Your task to perform on an android device: turn off javascript in the chrome app Image 0: 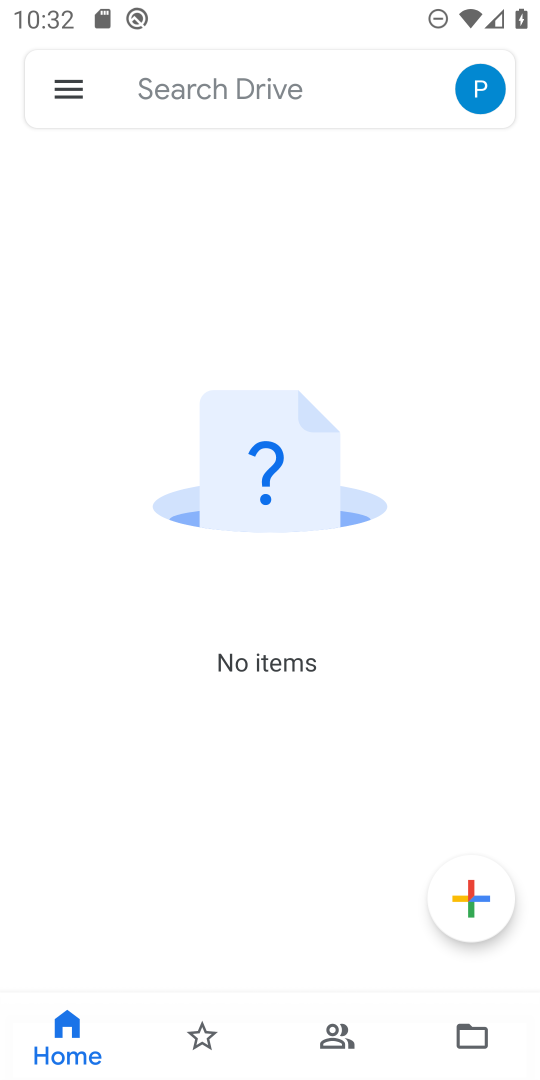
Step 0: press home button
Your task to perform on an android device: turn off javascript in the chrome app Image 1: 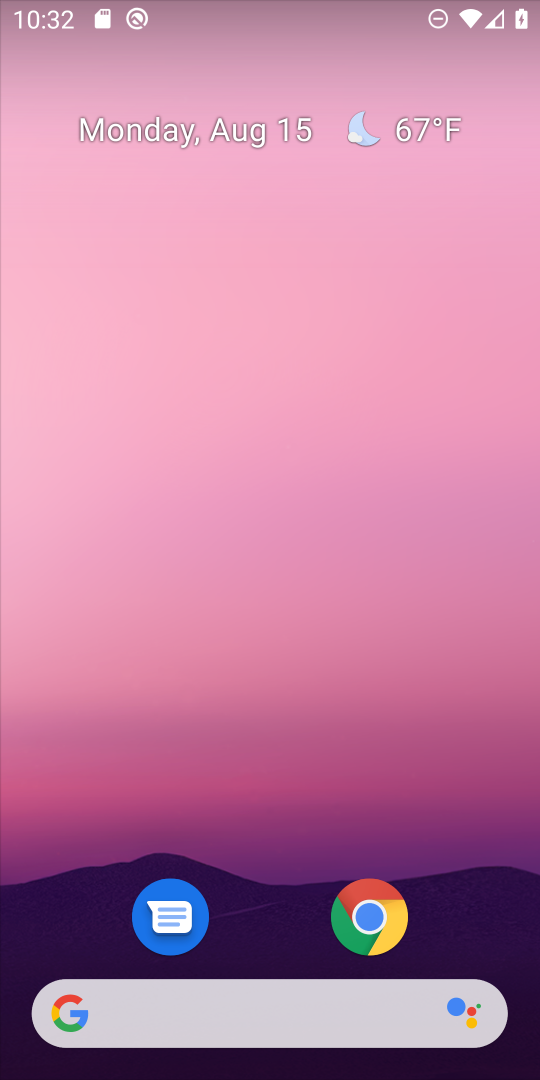
Step 1: click (360, 916)
Your task to perform on an android device: turn off javascript in the chrome app Image 2: 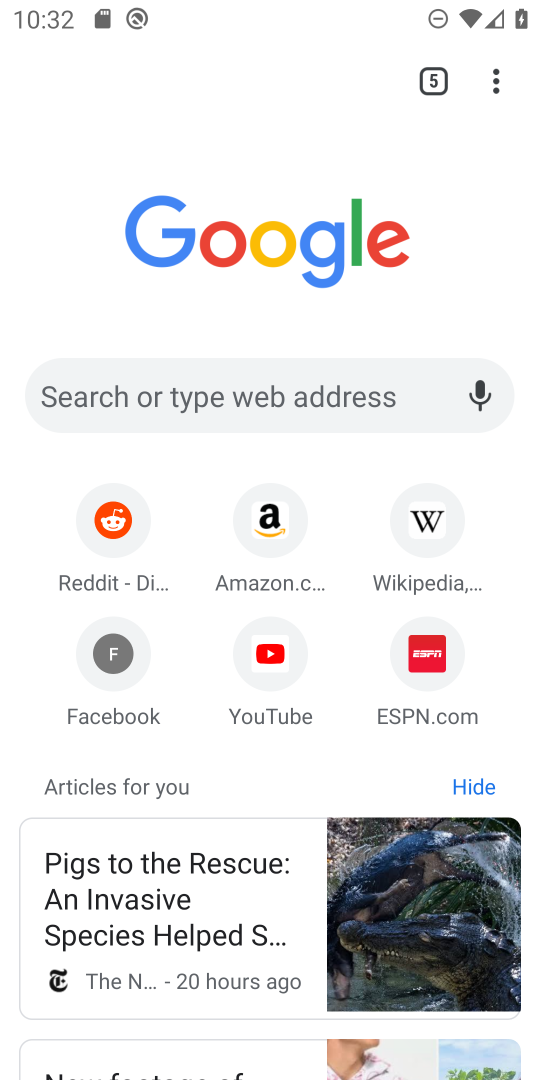
Step 2: click (490, 77)
Your task to perform on an android device: turn off javascript in the chrome app Image 3: 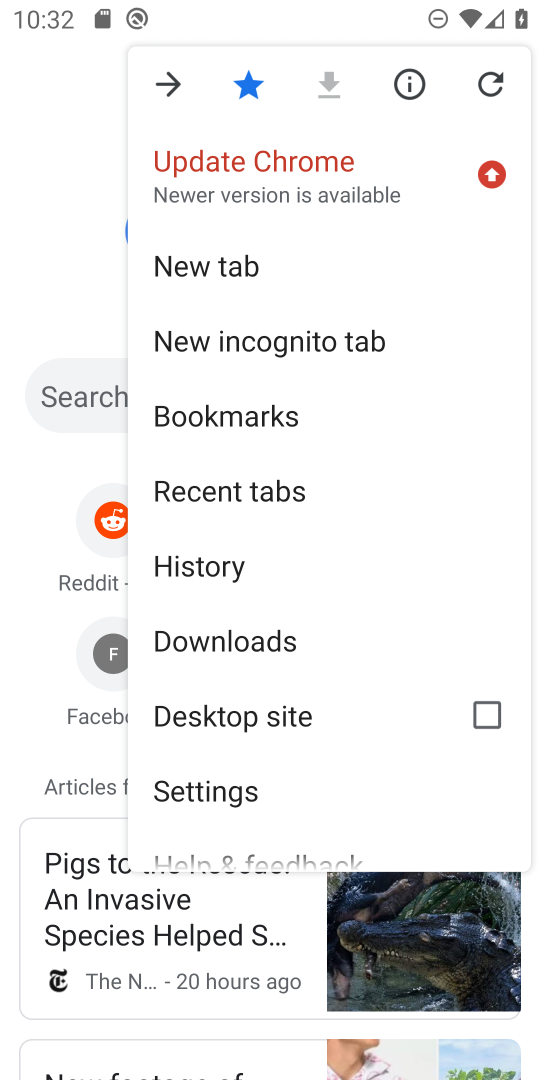
Step 3: click (250, 784)
Your task to perform on an android device: turn off javascript in the chrome app Image 4: 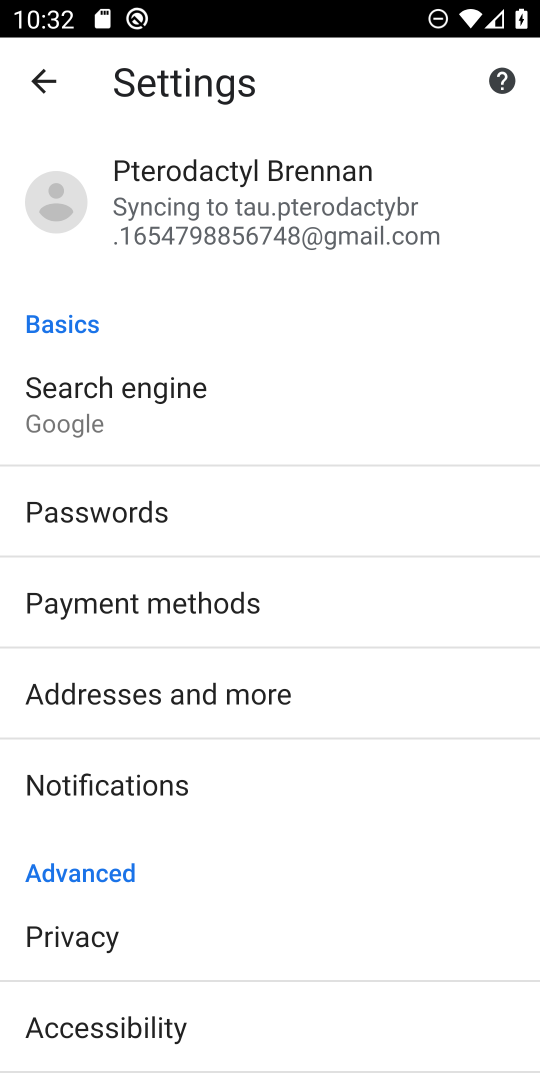
Step 4: drag from (251, 857) to (357, 213)
Your task to perform on an android device: turn off javascript in the chrome app Image 5: 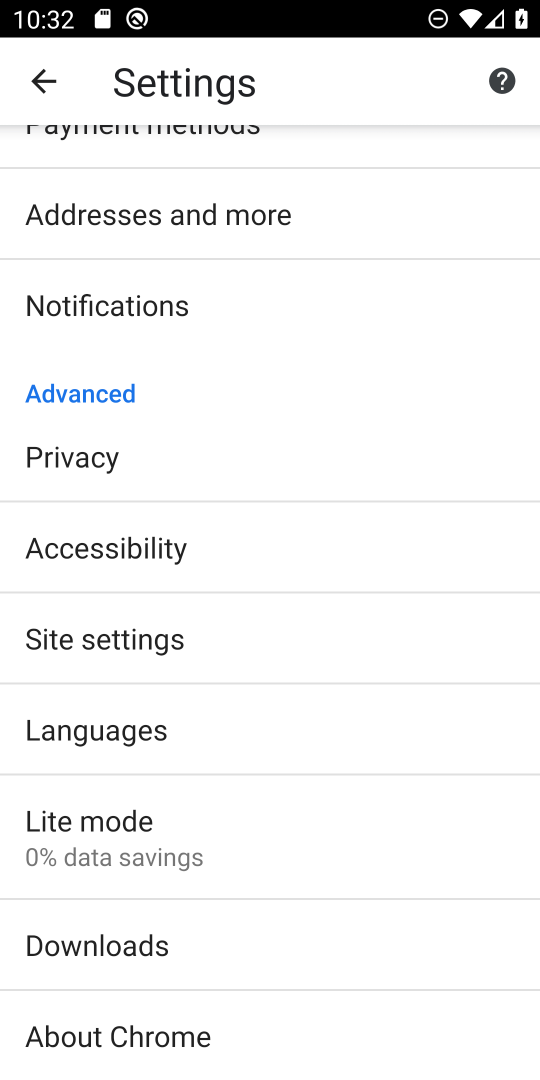
Step 5: click (181, 637)
Your task to perform on an android device: turn off javascript in the chrome app Image 6: 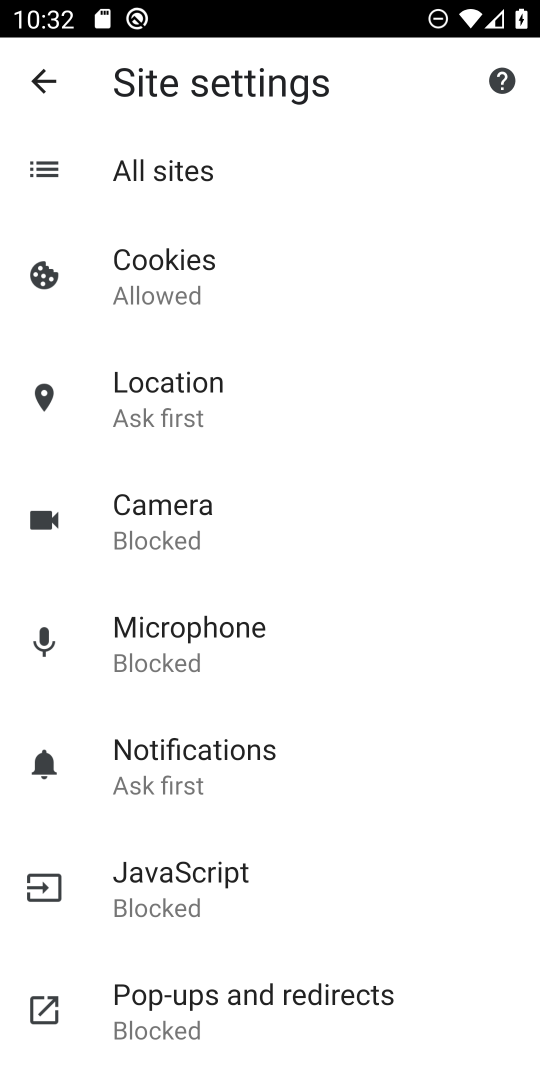
Step 6: click (199, 879)
Your task to perform on an android device: turn off javascript in the chrome app Image 7: 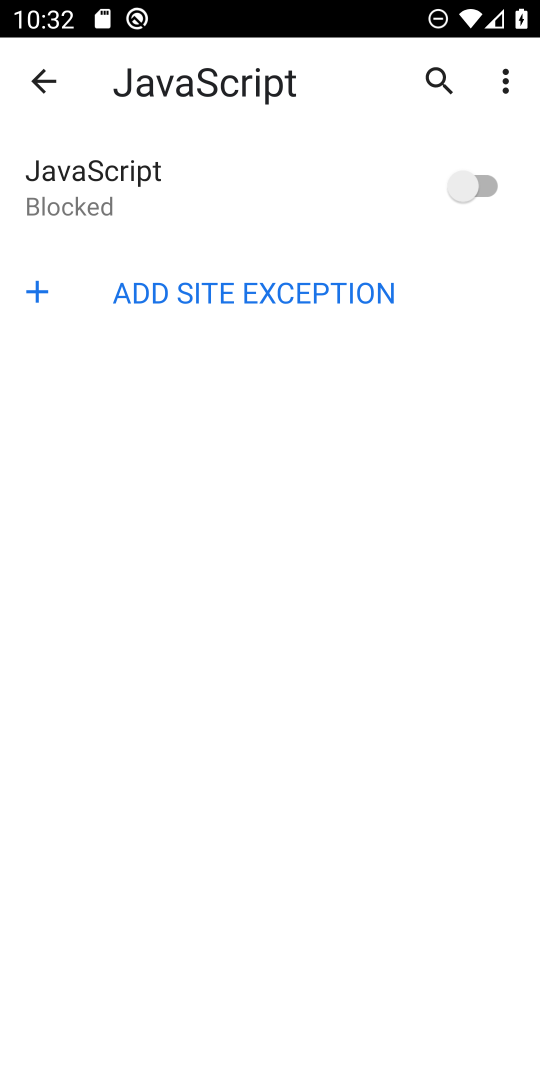
Step 7: task complete